Your task to perform on an android device: Show me popular videos on Youtube Image 0: 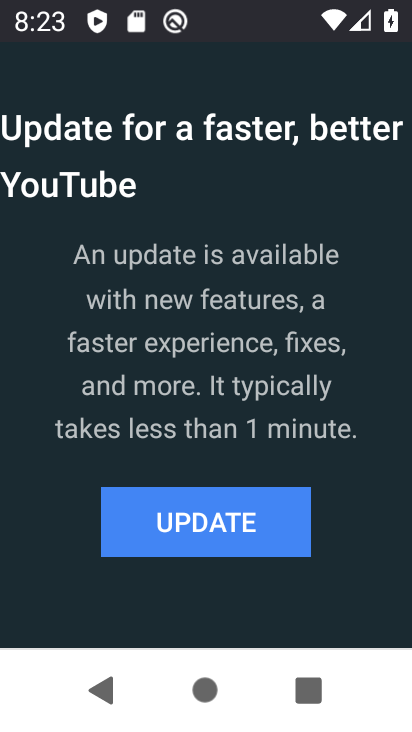
Step 0: press back button
Your task to perform on an android device: Show me popular videos on Youtube Image 1: 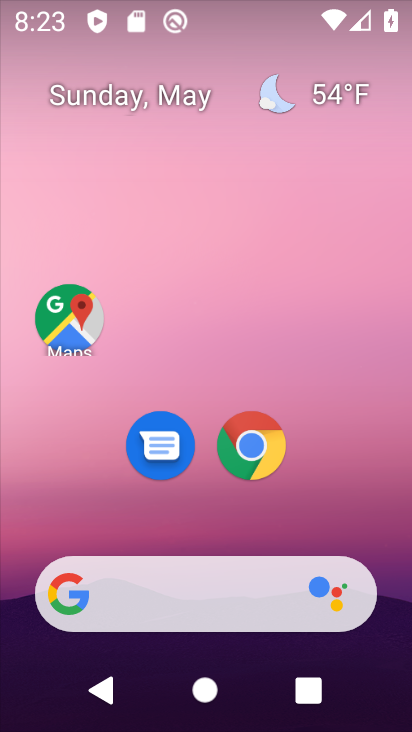
Step 1: drag from (380, 515) to (335, 188)
Your task to perform on an android device: Show me popular videos on Youtube Image 2: 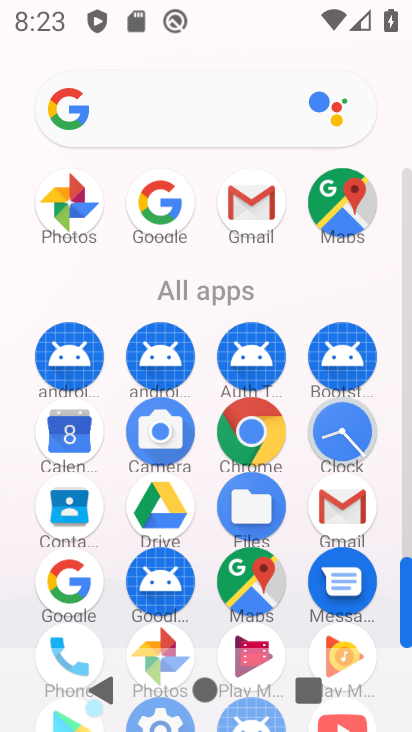
Step 2: drag from (407, 561) to (406, 627)
Your task to perform on an android device: Show me popular videos on Youtube Image 3: 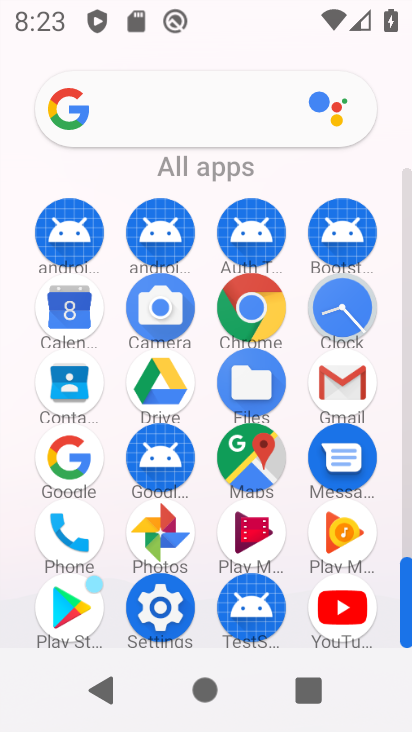
Step 3: click (369, 596)
Your task to perform on an android device: Show me popular videos on Youtube Image 4: 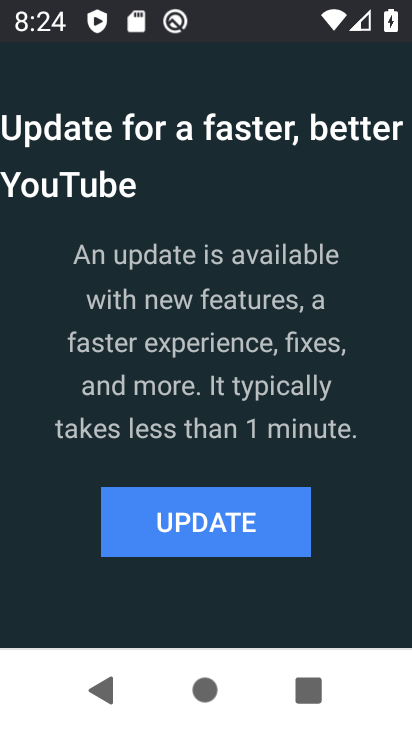
Step 4: click (202, 507)
Your task to perform on an android device: Show me popular videos on Youtube Image 5: 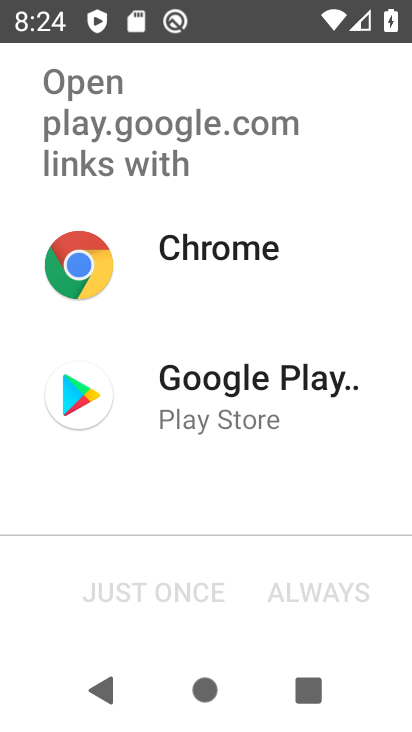
Step 5: click (253, 407)
Your task to perform on an android device: Show me popular videos on Youtube Image 6: 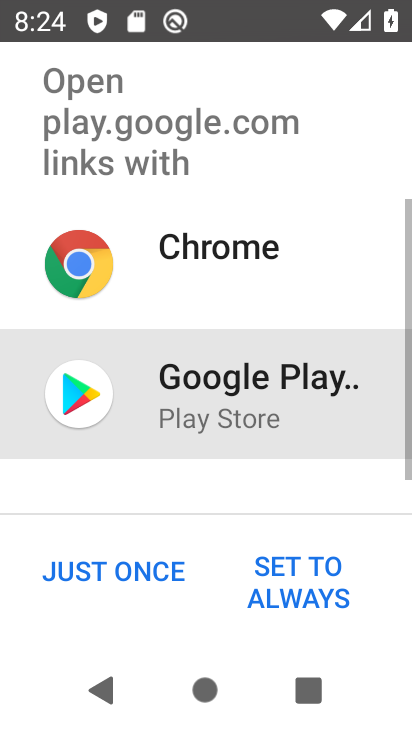
Step 6: click (155, 567)
Your task to perform on an android device: Show me popular videos on Youtube Image 7: 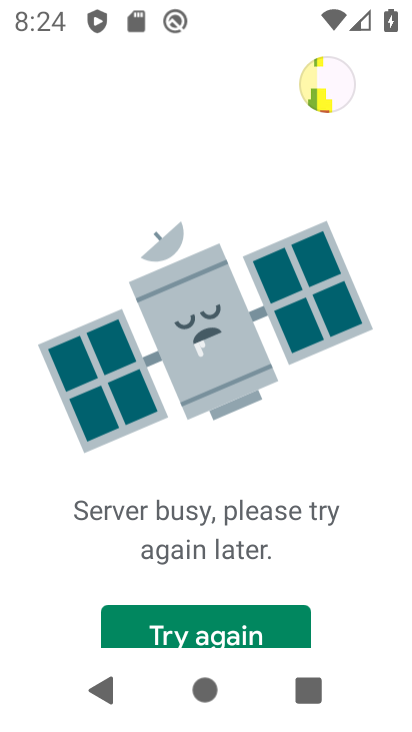
Step 7: click (201, 626)
Your task to perform on an android device: Show me popular videos on Youtube Image 8: 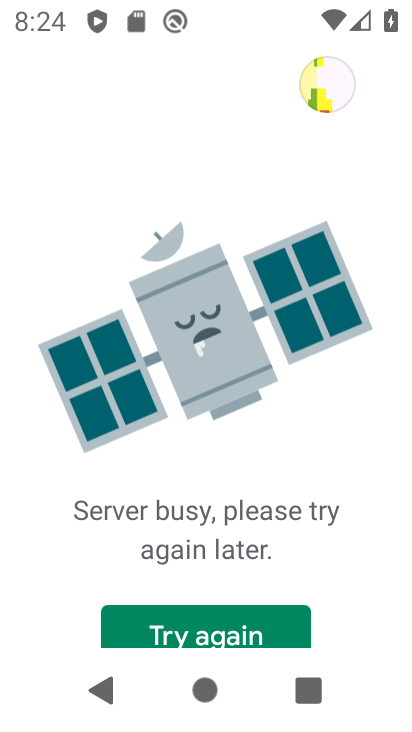
Step 8: click (201, 626)
Your task to perform on an android device: Show me popular videos on Youtube Image 9: 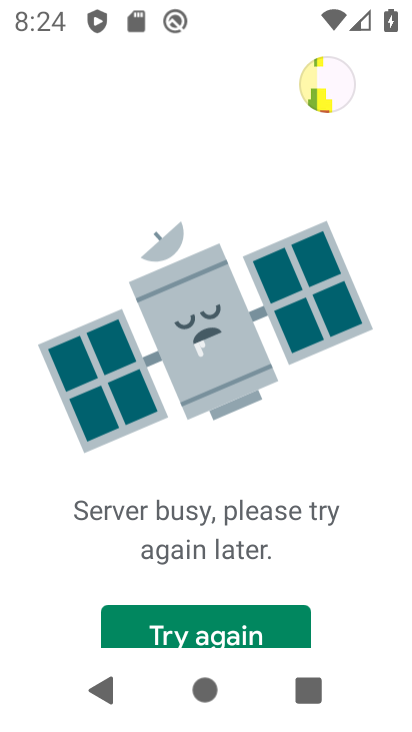
Step 9: task complete